Your task to perform on an android device: turn off priority inbox in the gmail app Image 0: 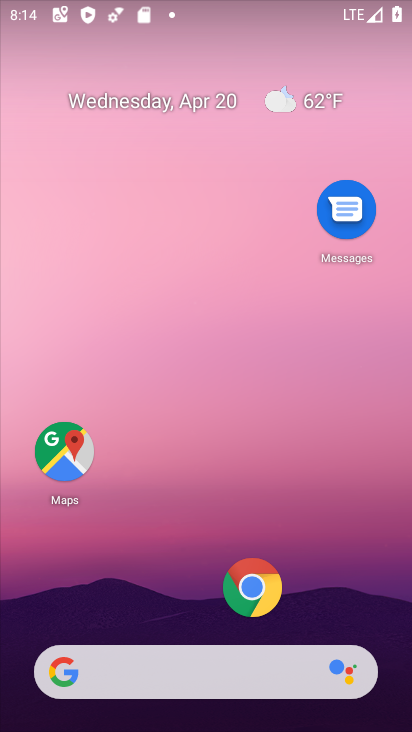
Step 0: drag from (175, 641) to (296, 261)
Your task to perform on an android device: turn off priority inbox in the gmail app Image 1: 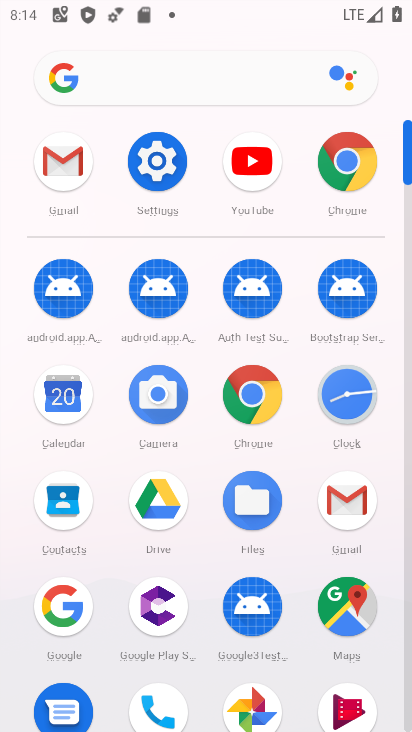
Step 1: click (62, 170)
Your task to perform on an android device: turn off priority inbox in the gmail app Image 2: 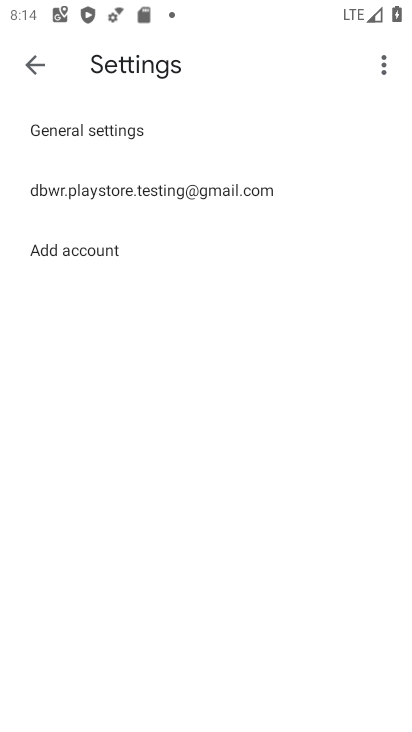
Step 2: click (92, 187)
Your task to perform on an android device: turn off priority inbox in the gmail app Image 3: 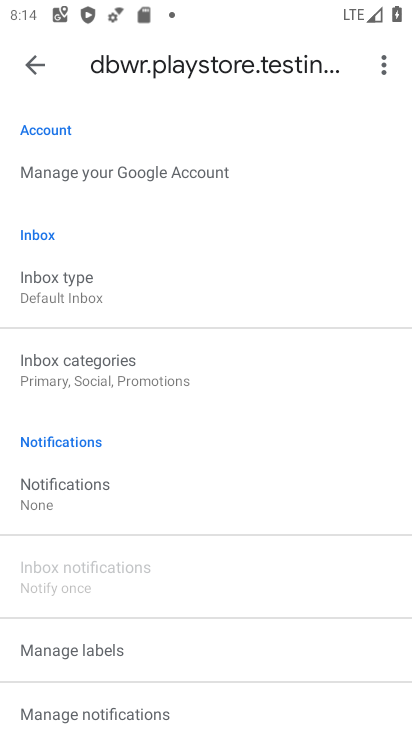
Step 3: click (77, 287)
Your task to perform on an android device: turn off priority inbox in the gmail app Image 4: 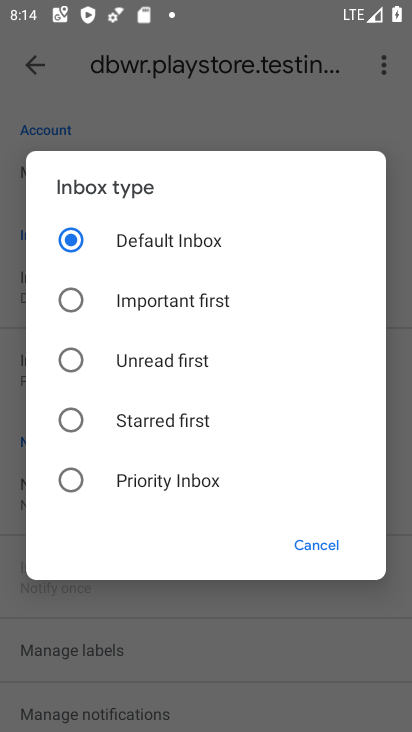
Step 4: task complete